Your task to perform on an android device: empty trash in google photos Image 0: 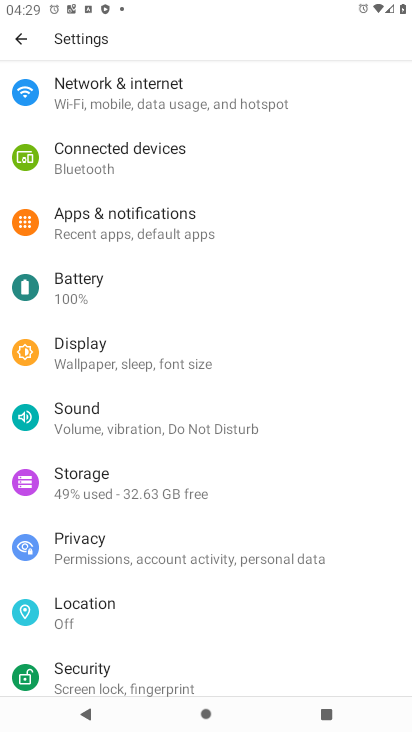
Step 0: press home button
Your task to perform on an android device: empty trash in google photos Image 1: 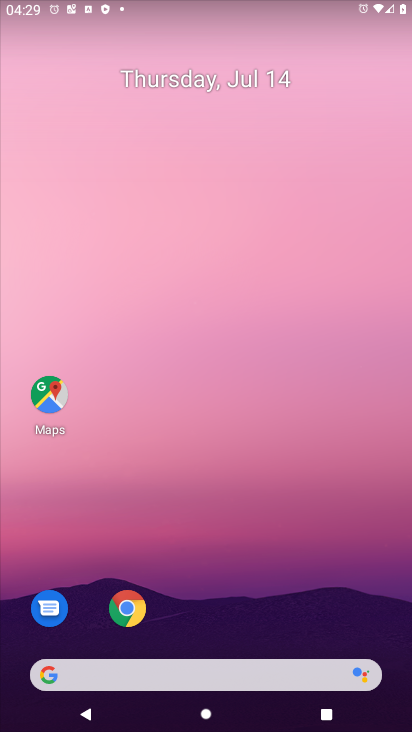
Step 1: drag from (381, 622) to (361, 211)
Your task to perform on an android device: empty trash in google photos Image 2: 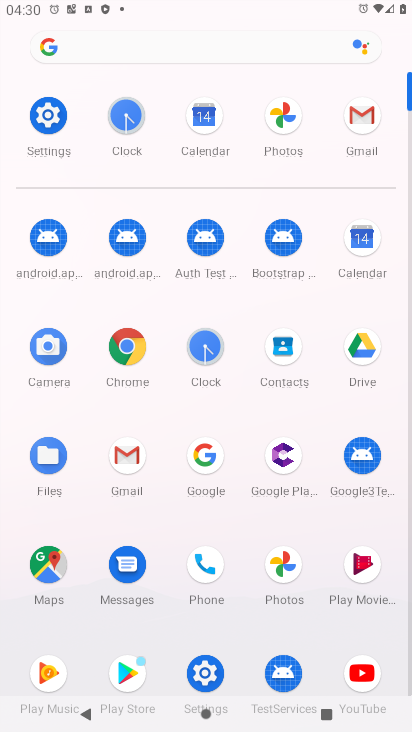
Step 2: click (280, 564)
Your task to perform on an android device: empty trash in google photos Image 3: 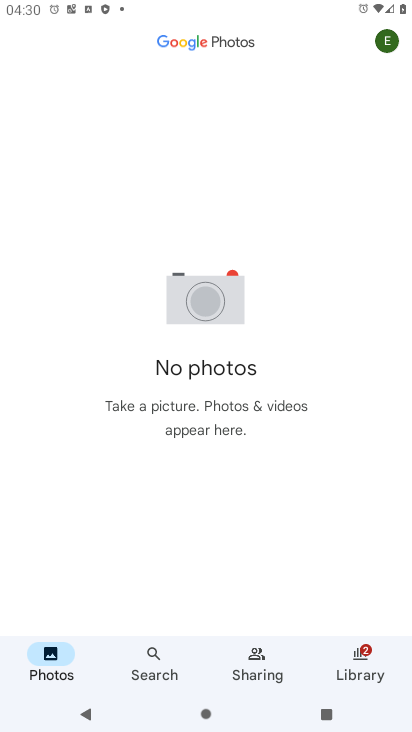
Step 3: click (353, 654)
Your task to perform on an android device: empty trash in google photos Image 4: 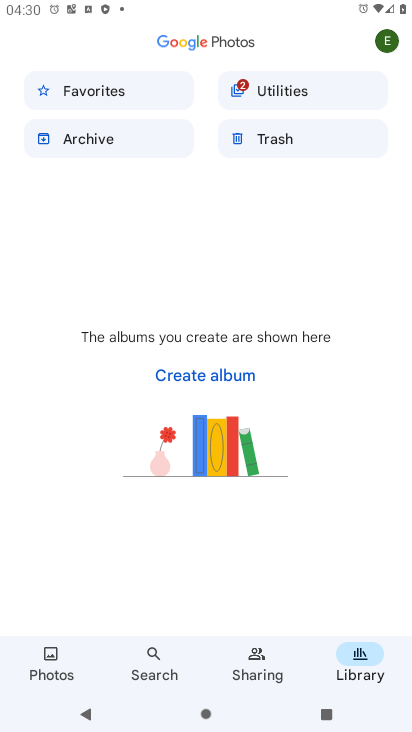
Step 4: click (261, 130)
Your task to perform on an android device: empty trash in google photos Image 5: 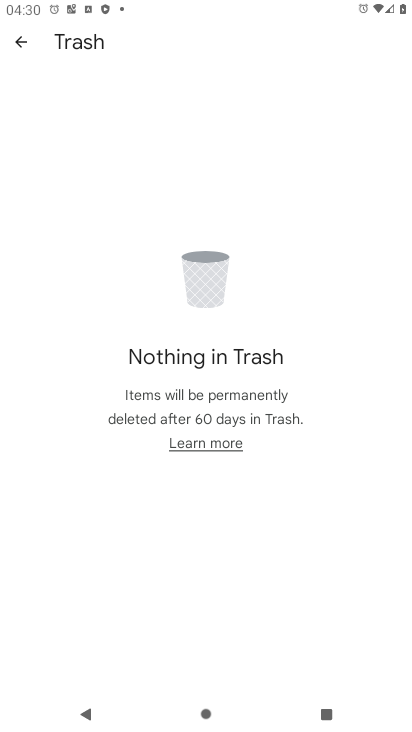
Step 5: task complete